Your task to perform on an android device: Open eBay Image 0: 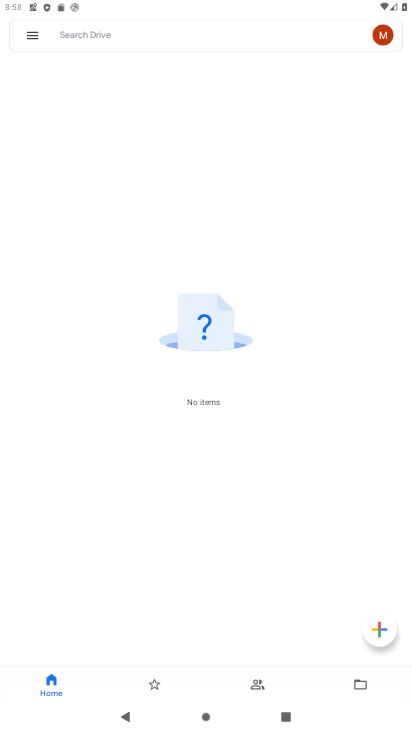
Step 0: press home button
Your task to perform on an android device: Open eBay Image 1: 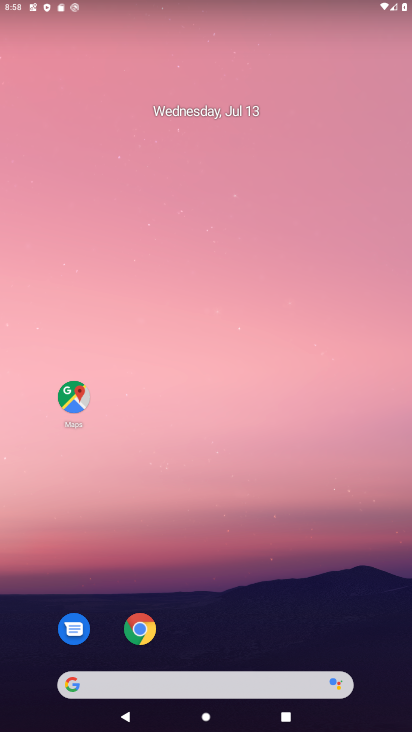
Step 1: drag from (297, 645) to (210, 40)
Your task to perform on an android device: Open eBay Image 2: 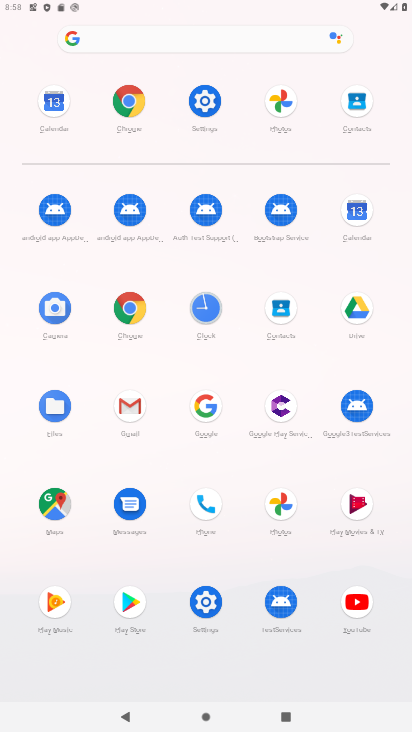
Step 2: click (119, 303)
Your task to perform on an android device: Open eBay Image 3: 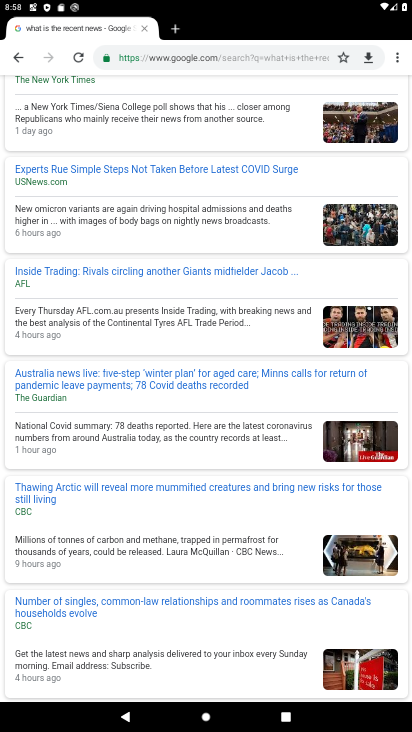
Step 3: click (190, 51)
Your task to perform on an android device: Open eBay Image 4: 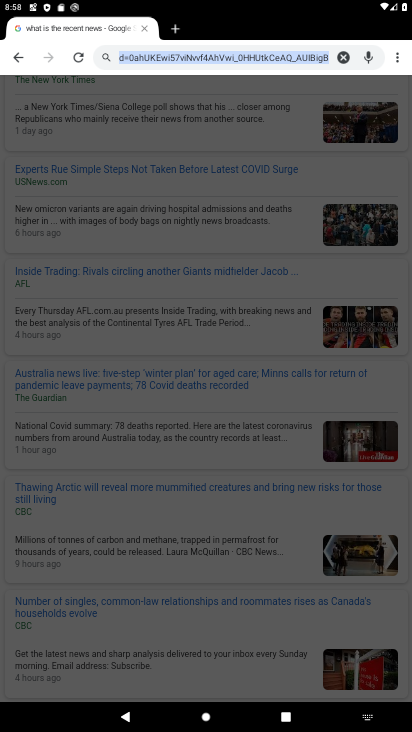
Step 4: click (345, 59)
Your task to perform on an android device: Open eBay Image 5: 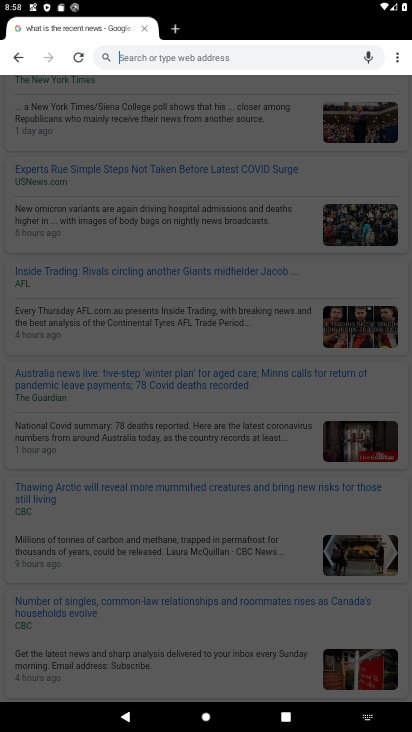
Step 5: type "eBay"
Your task to perform on an android device: Open eBay Image 6: 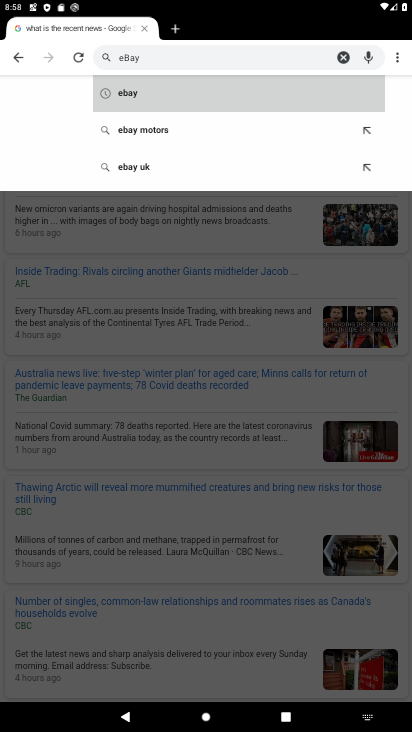
Step 6: click (133, 95)
Your task to perform on an android device: Open eBay Image 7: 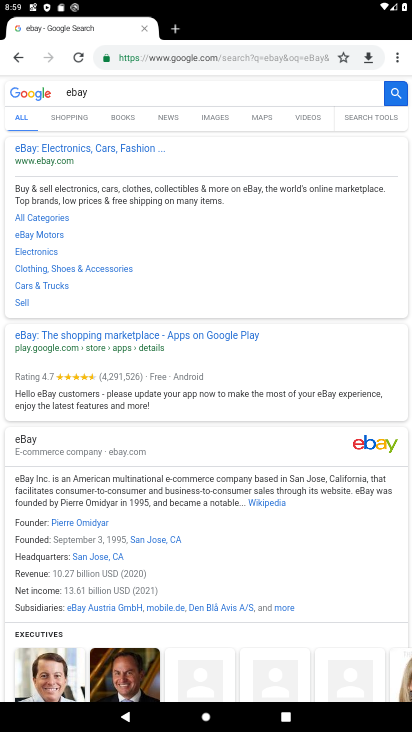
Step 7: click (62, 142)
Your task to perform on an android device: Open eBay Image 8: 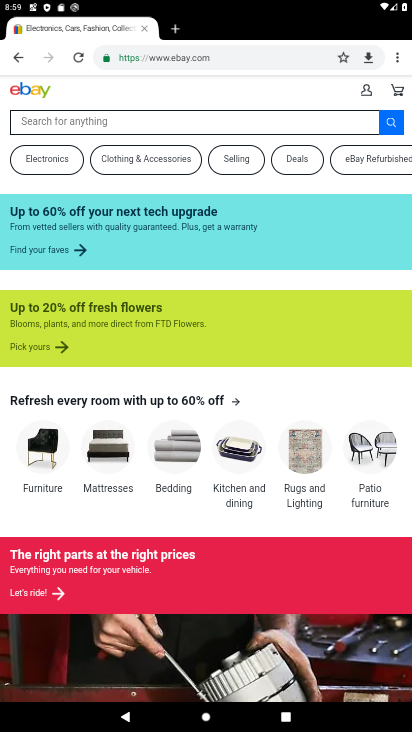
Step 8: task complete